Your task to perform on an android device: Open display settings Image 0: 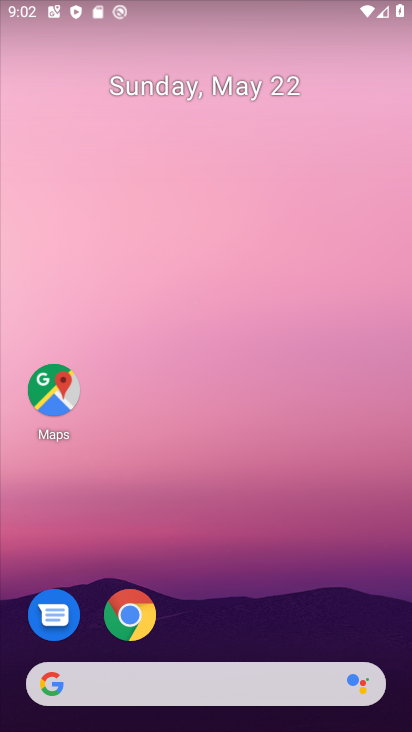
Step 0: drag from (219, 629) to (259, 334)
Your task to perform on an android device: Open display settings Image 1: 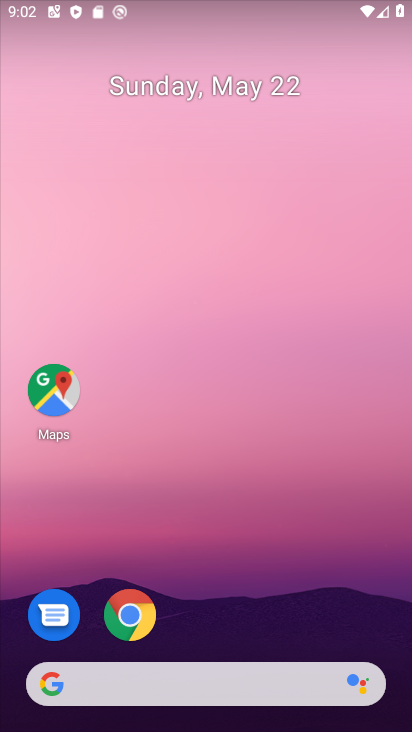
Step 1: drag from (216, 648) to (290, 291)
Your task to perform on an android device: Open display settings Image 2: 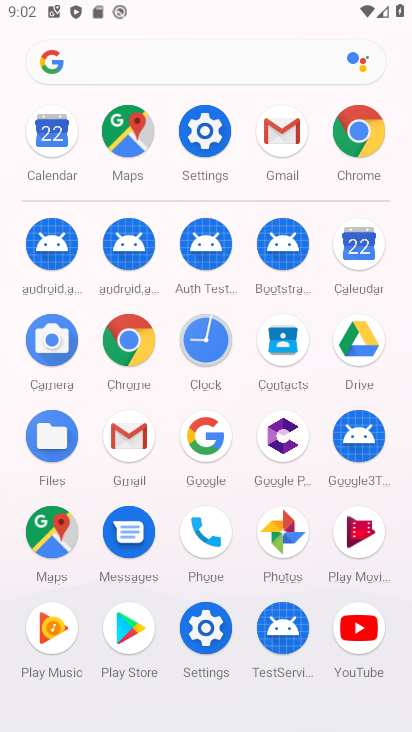
Step 2: click (193, 109)
Your task to perform on an android device: Open display settings Image 3: 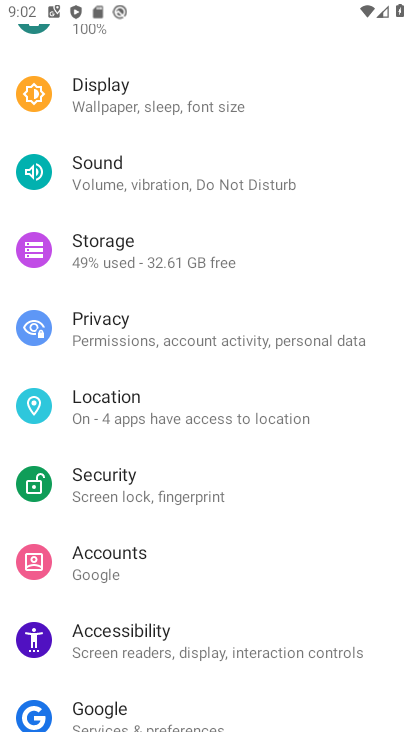
Step 3: drag from (136, 593) to (158, 423)
Your task to perform on an android device: Open display settings Image 4: 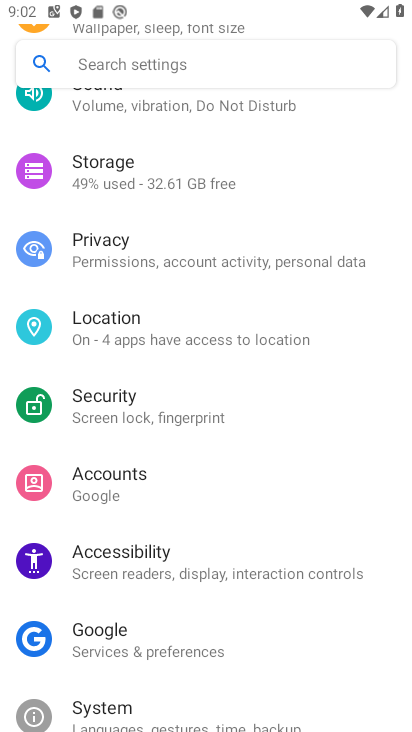
Step 4: drag from (132, 172) to (132, 542)
Your task to perform on an android device: Open display settings Image 5: 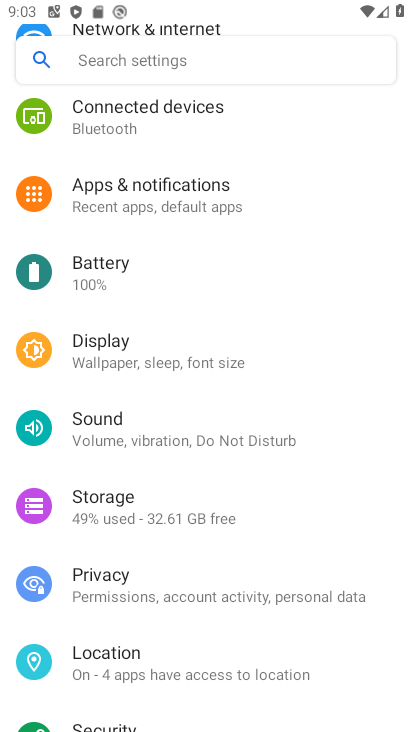
Step 5: click (145, 343)
Your task to perform on an android device: Open display settings Image 6: 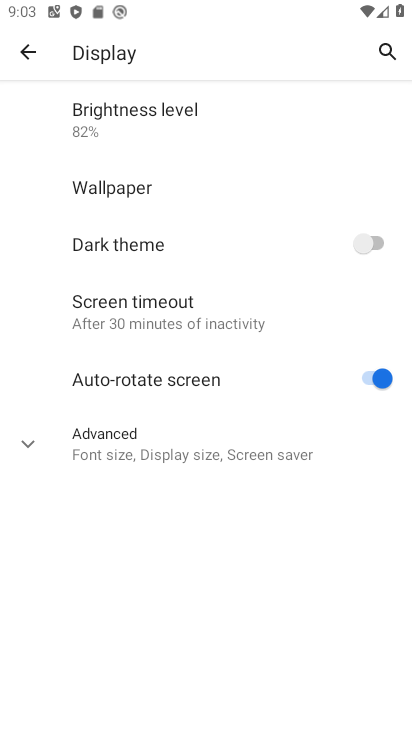
Step 6: task complete